Your task to perform on an android device: turn off improve location accuracy Image 0: 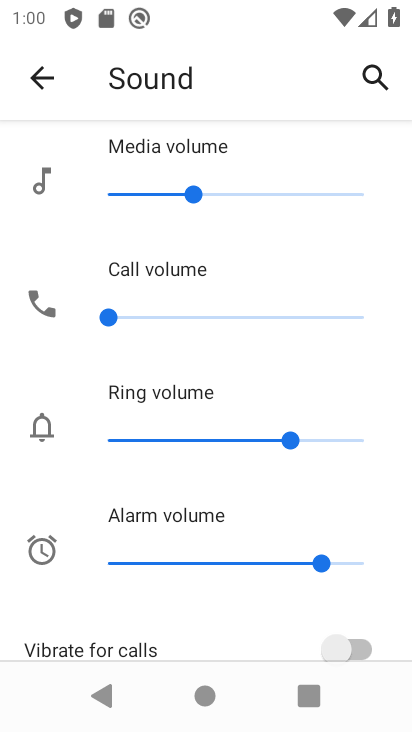
Step 0: press home button
Your task to perform on an android device: turn off improve location accuracy Image 1: 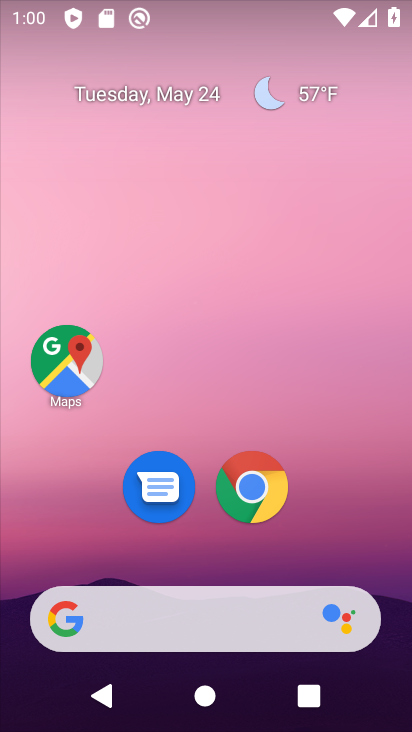
Step 1: drag from (228, 197) to (225, 119)
Your task to perform on an android device: turn off improve location accuracy Image 2: 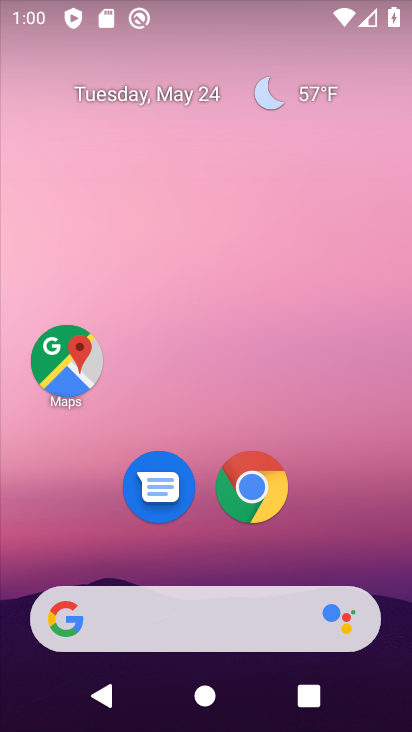
Step 2: drag from (210, 729) to (211, 96)
Your task to perform on an android device: turn off improve location accuracy Image 3: 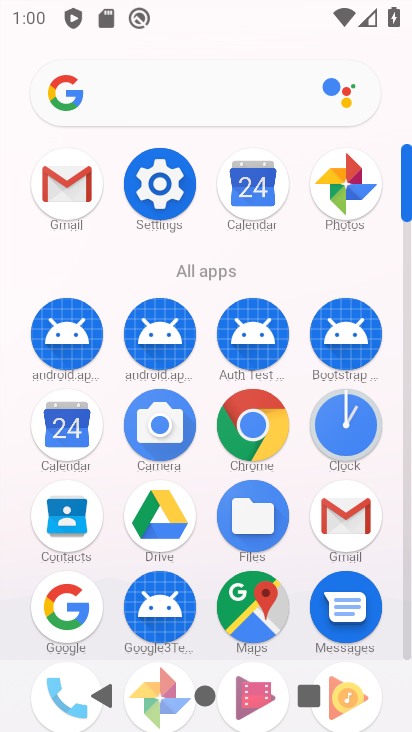
Step 3: click (155, 190)
Your task to perform on an android device: turn off improve location accuracy Image 4: 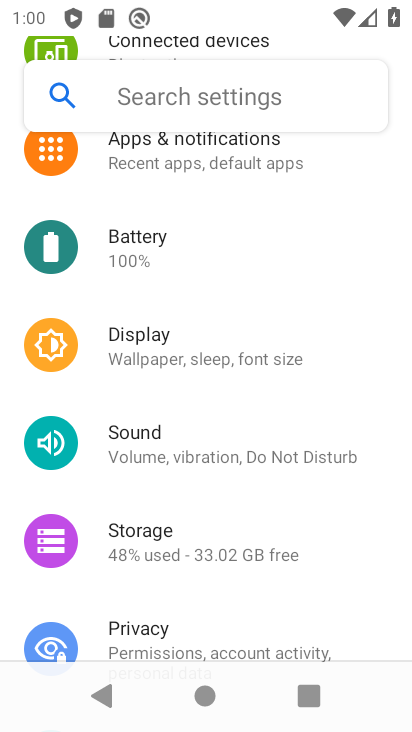
Step 4: drag from (144, 627) to (144, 254)
Your task to perform on an android device: turn off improve location accuracy Image 5: 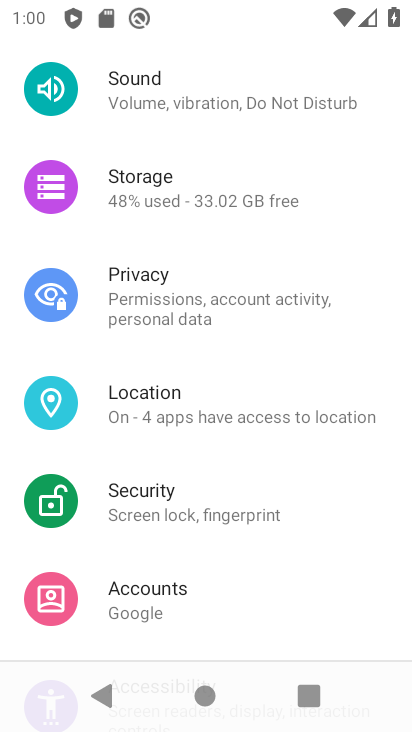
Step 5: click (146, 409)
Your task to perform on an android device: turn off improve location accuracy Image 6: 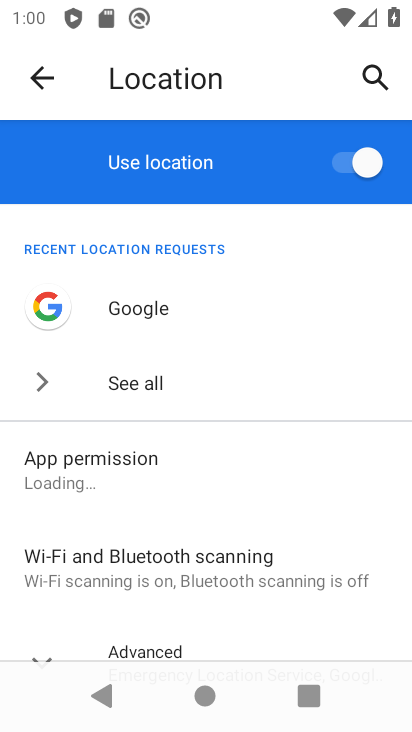
Step 6: drag from (200, 604) to (209, 322)
Your task to perform on an android device: turn off improve location accuracy Image 7: 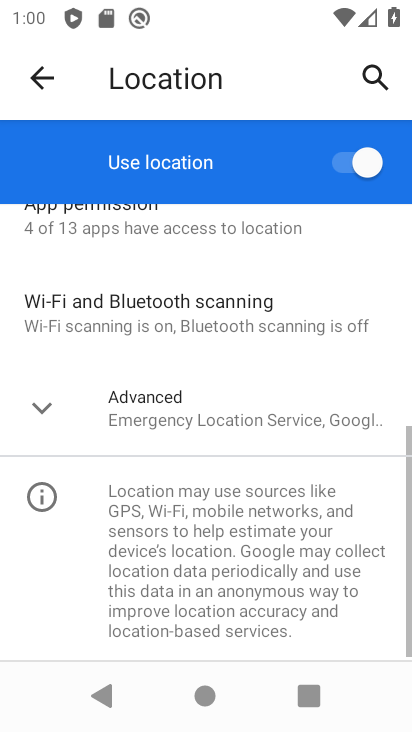
Step 7: click (163, 407)
Your task to perform on an android device: turn off improve location accuracy Image 8: 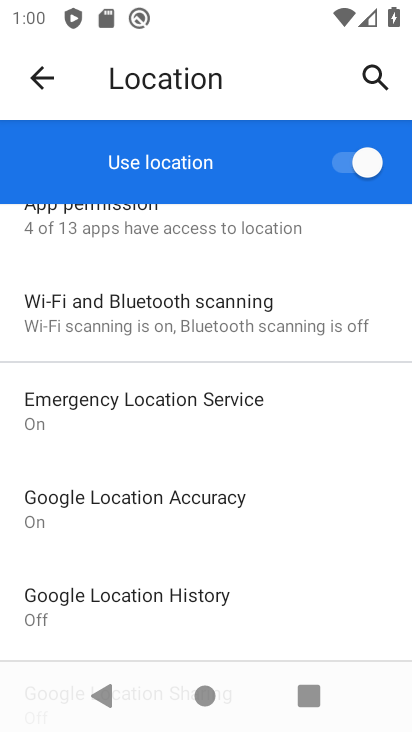
Step 8: drag from (170, 605) to (173, 417)
Your task to perform on an android device: turn off improve location accuracy Image 9: 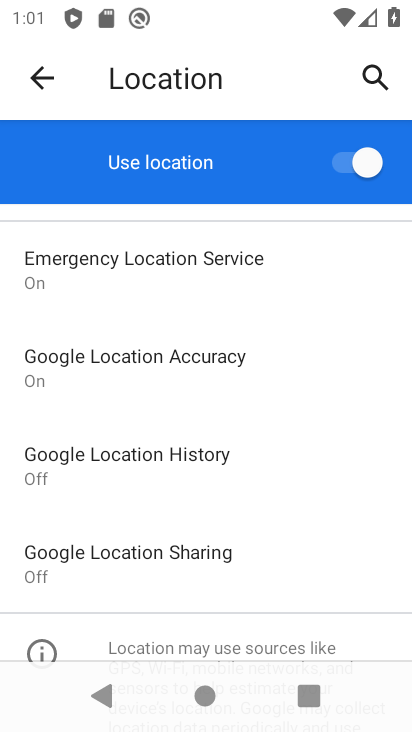
Step 9: click (153, 354)
Your task to perform on an android device: turn off improve location accuracy Image 10: 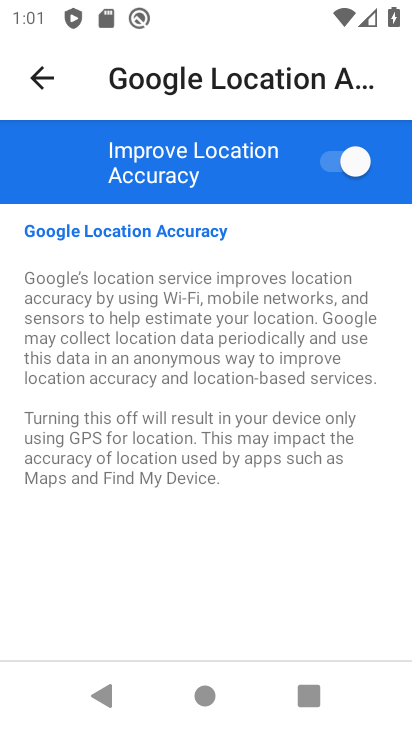
Step 10: click (322, 157)
Your task to perform on an android device: turn off improve location accuracy Image 11: 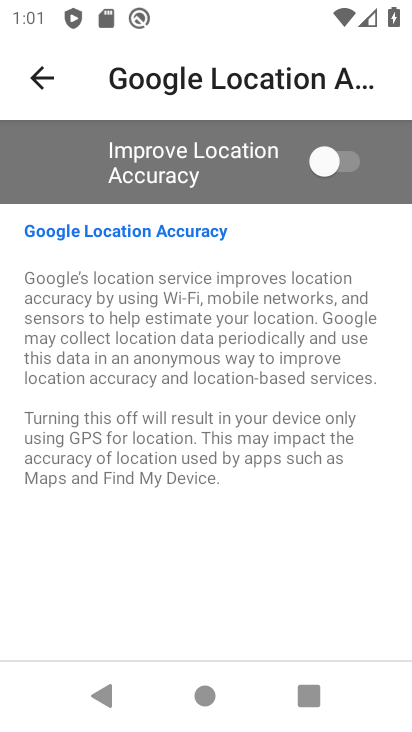
Step 11: task complete